Your task to perform on an android device: Where can I buy a nice beach towel? Image 0: 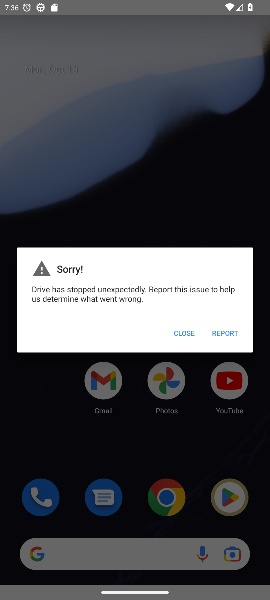
Step 0: press home button
Your task to perform on an android device: Where can I buy a nice beach towel? Image 1: 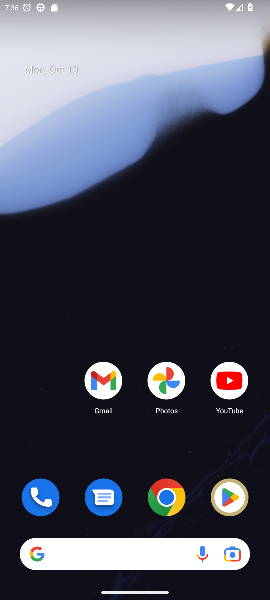
Step 1: drag from (111, 447) to (127, 78)
Your task to perform on an android device: Where can I buy a nice beach towel? Image 2: 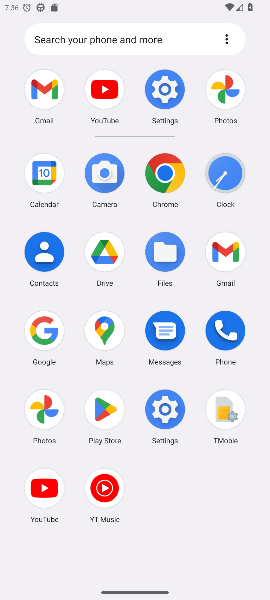
Step 2: click (33, 320)
Your task to perform on an android device: Where can I buy a nice beach towel? Image 3: 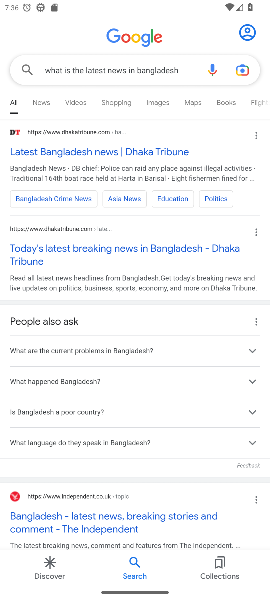
Step 3: click (119, 68)
Your task to perform on an android device: Where can I buy a nice beach towel? Image 4: 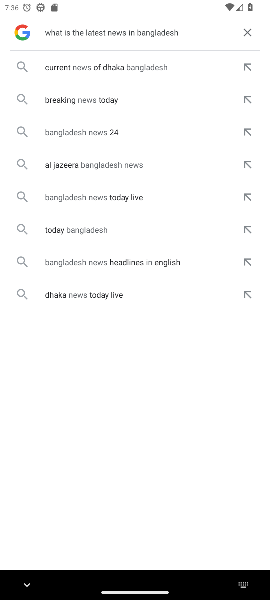
Step 4: click (247, 36)
Your task to perform on an android device: Where can I buy a nice beach towel? Image 5: 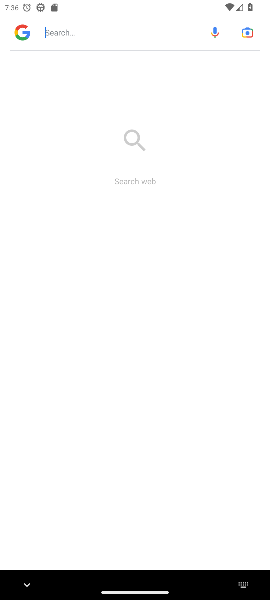
Step 5: click (73, 19)
Your task to perform on an android device: Where can I buy a nice beach towel? Image 6: 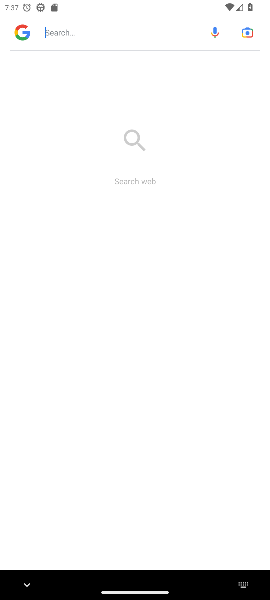
Step 6: type "Where can I buy a nice beach towel? "
Your task to perform on an android device: Where can I buy a nice beach towel? Image 7: 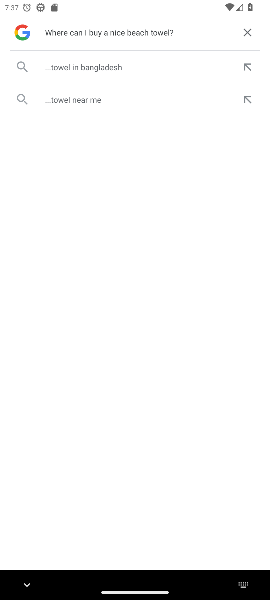
Step 7: click (94, 95)
Your task to perform on an android device: Where can I buy a nice beach towel? Image 8: 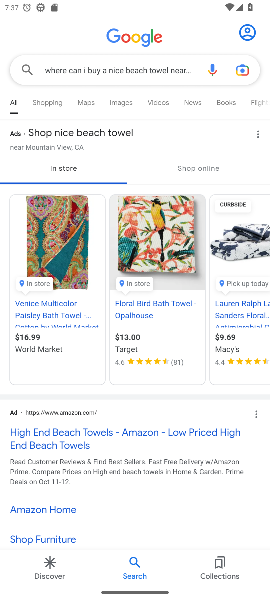
Step 8: task complete